Your task to perform on an android device: uninstall "Paramount+ | Peak Streaming" Image 0: 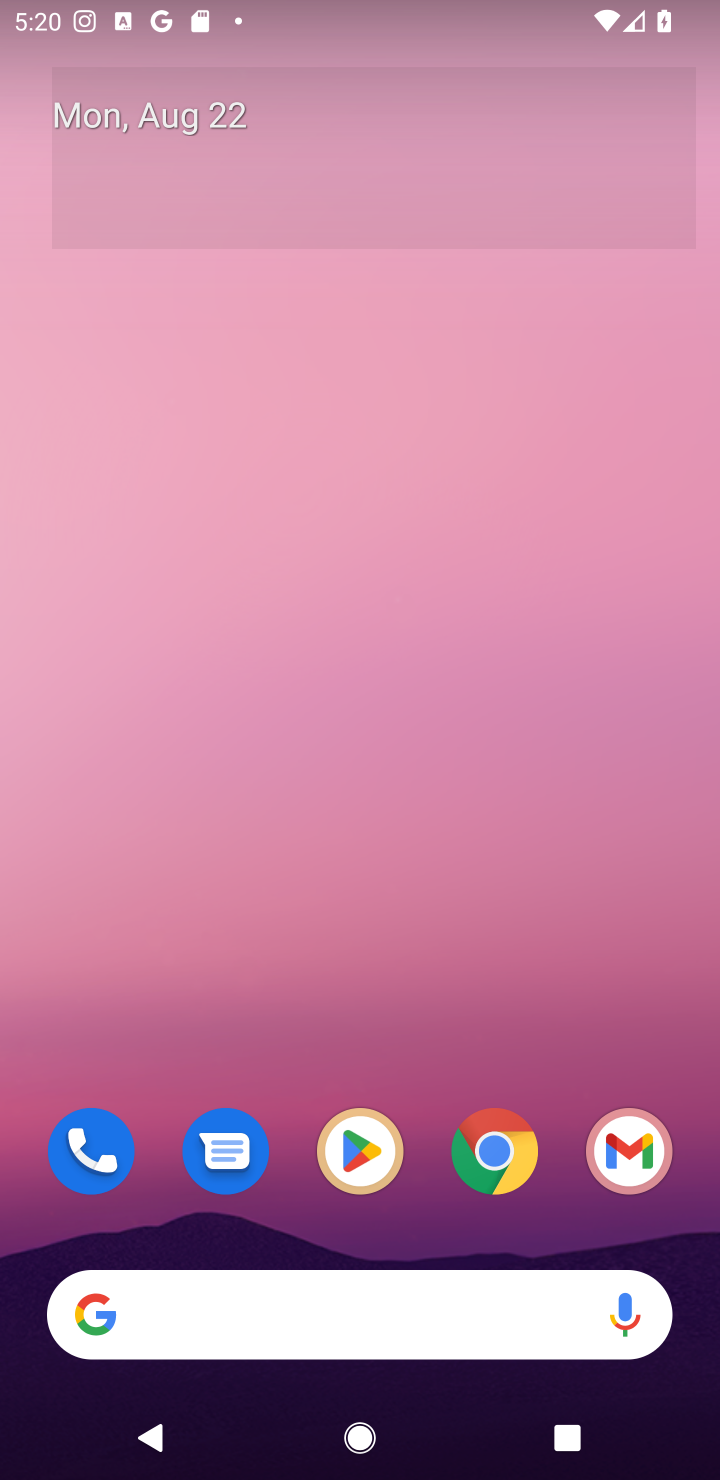
Step 0: click (362, 1145)
Your task to perform on an android device: uninstall "Paramount+ | Peak Streaming" Image 1: 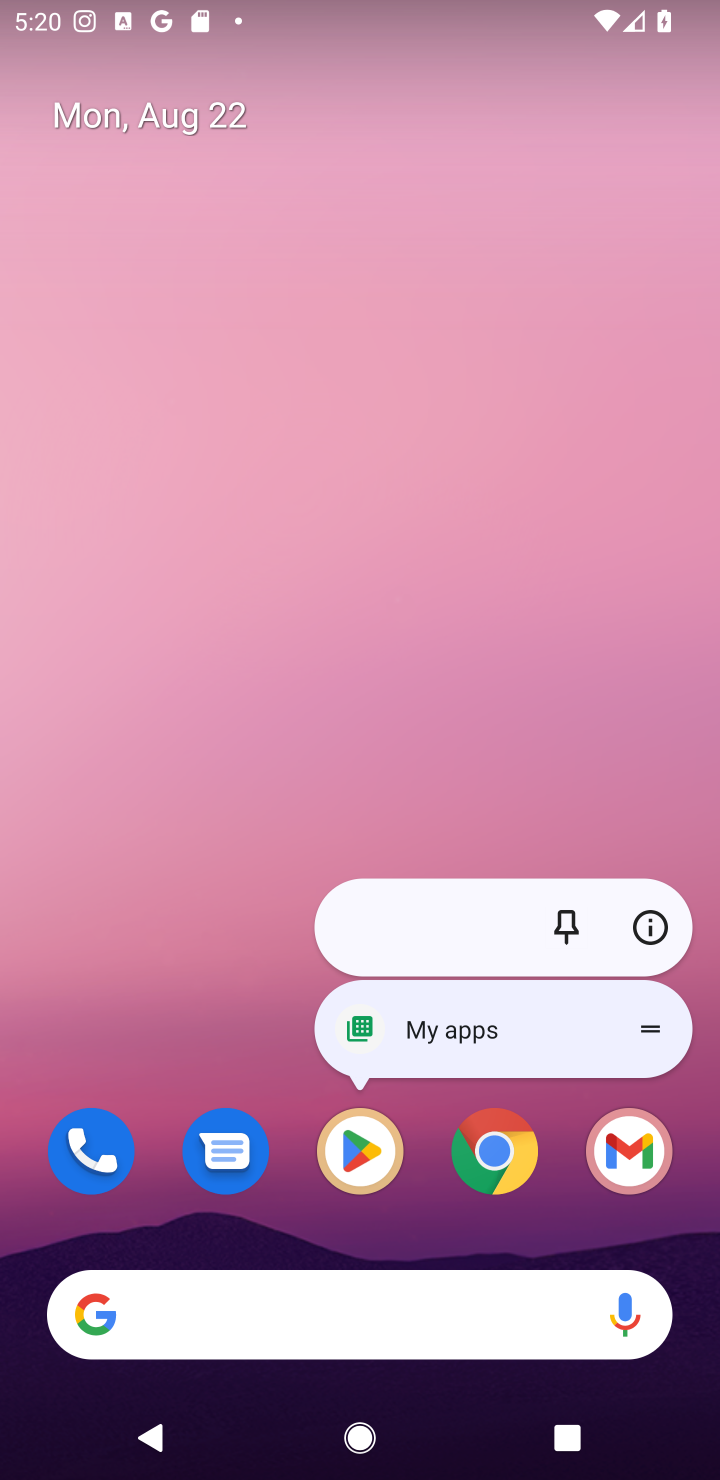
Step 1: click (362, 1149)
Your task to perform on an android device: uninstall "Paramount+ | Peak Streaming" Image 2: 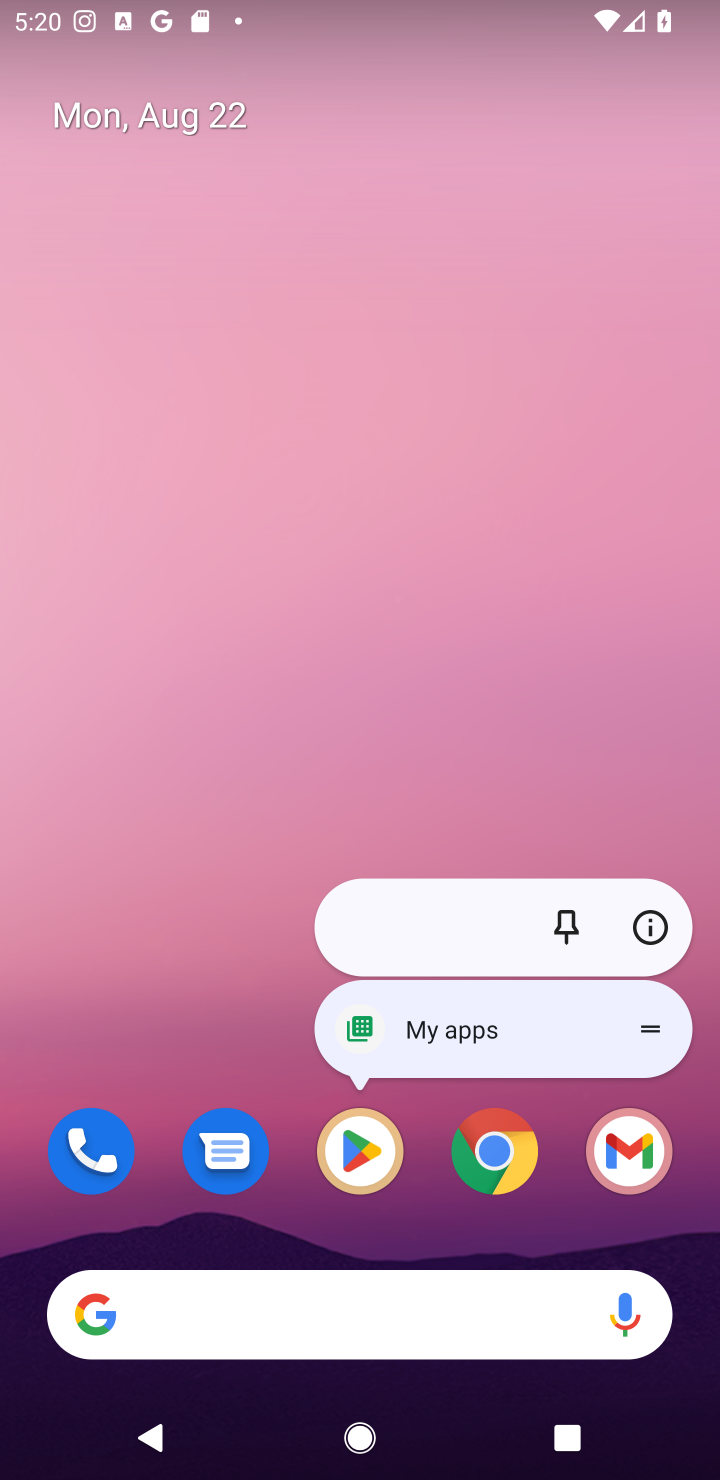
Step 2: click (369, 1134)
Your task to perform on an android device: uninstall "Paramount+ | Peak Streaming" Image 3: 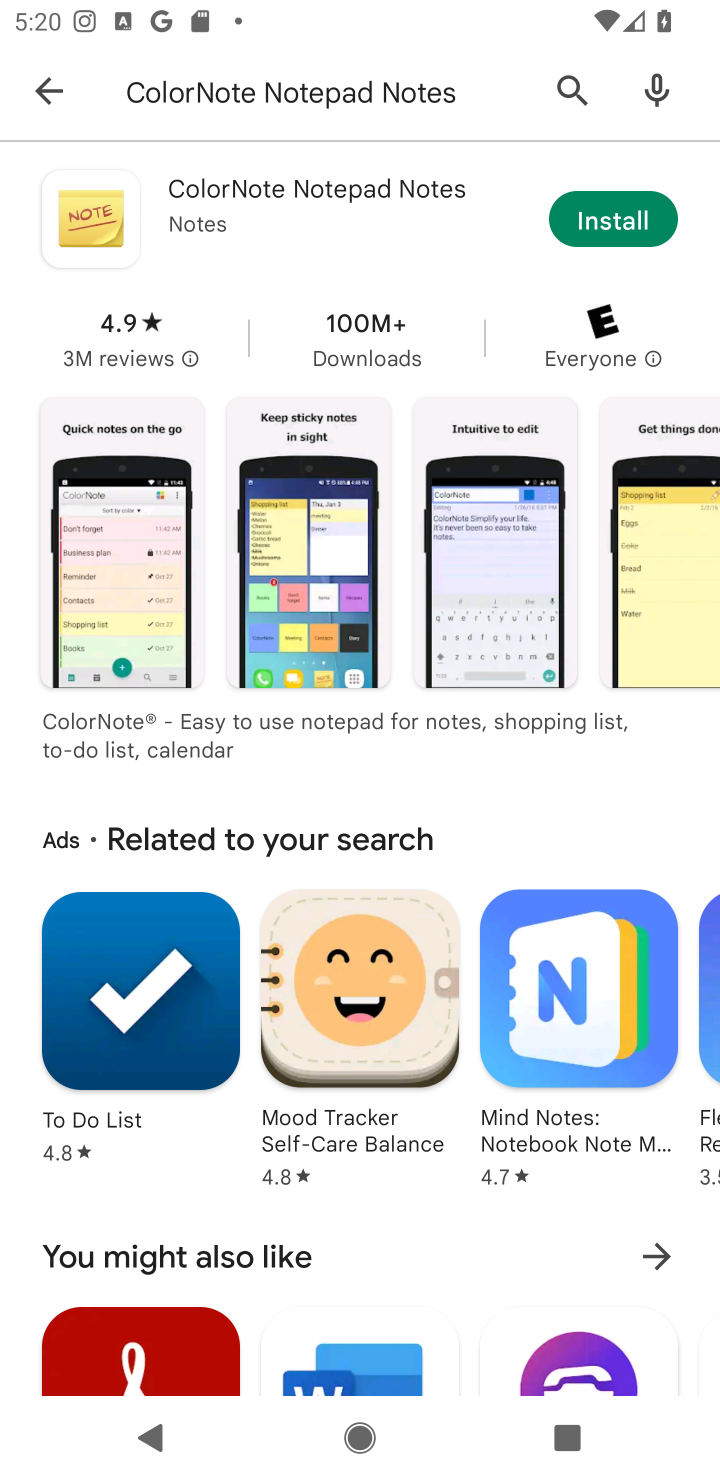
Step 3: click (558, 84)
Your task to perform on an android device: uninstall "Paramount+ | Peak Streaming" Image 4: 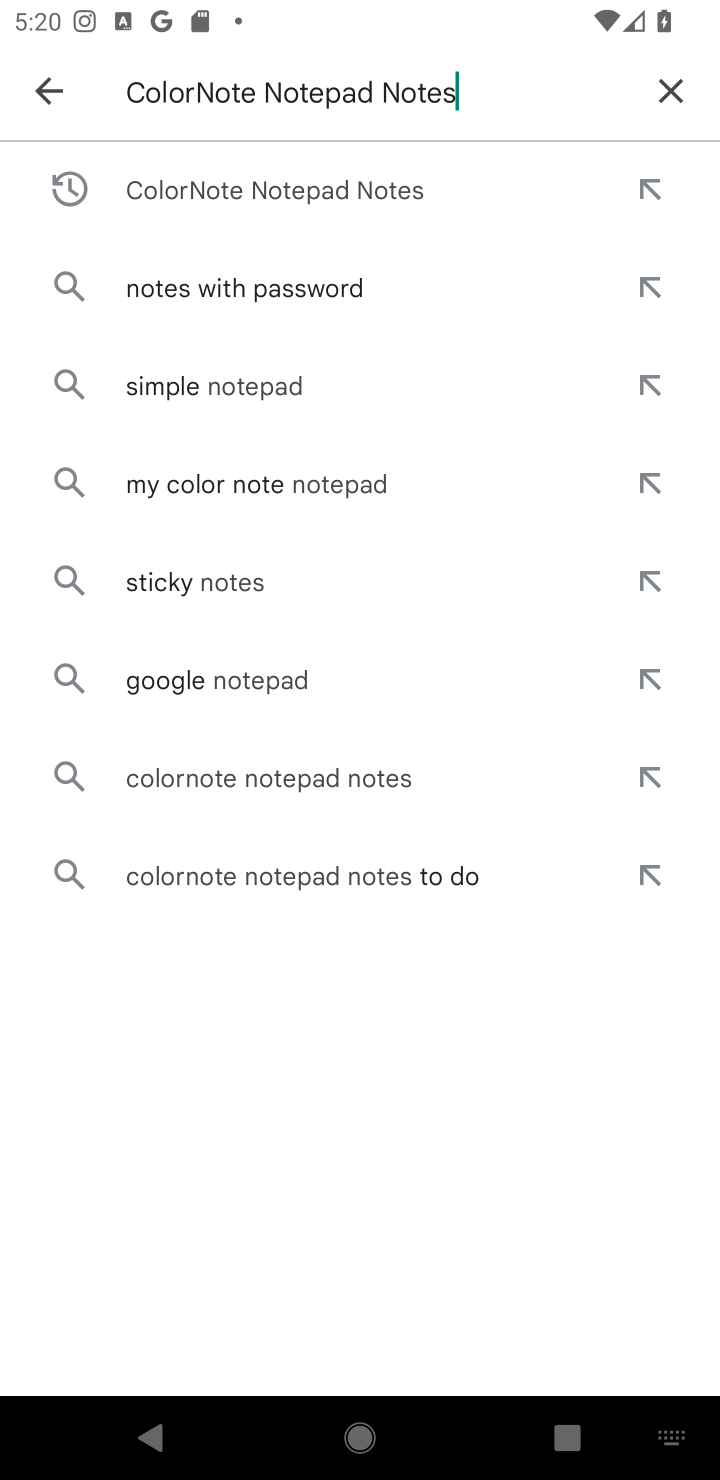
Step 4: click (669, 83)
Your task to perform on an android device: uninstall "Paramount+ | Peak Streaming" Image 5: 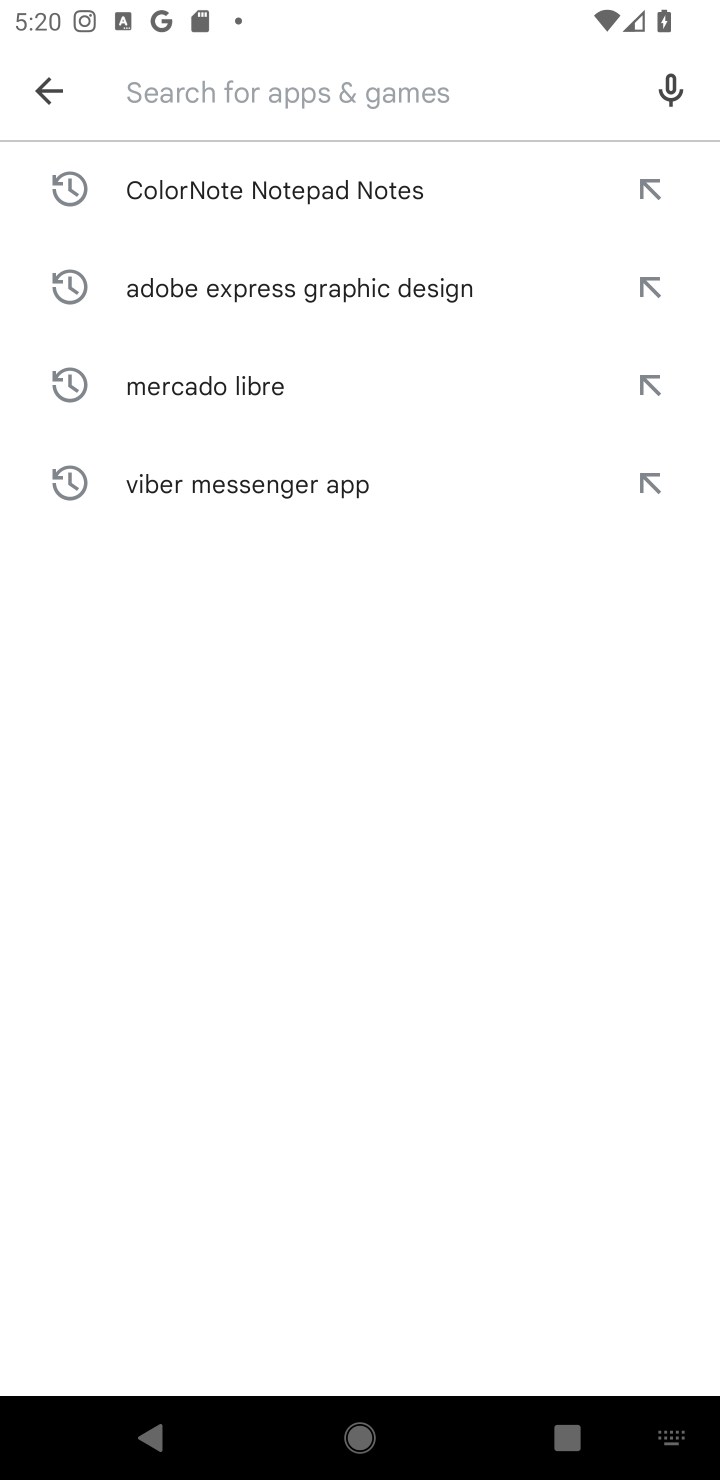
Step 5: type "Paramount+ | Peak Streaming"
Your task to perform on an android device: uninstall "Paramount+ | Peak Streaming" Image 6: 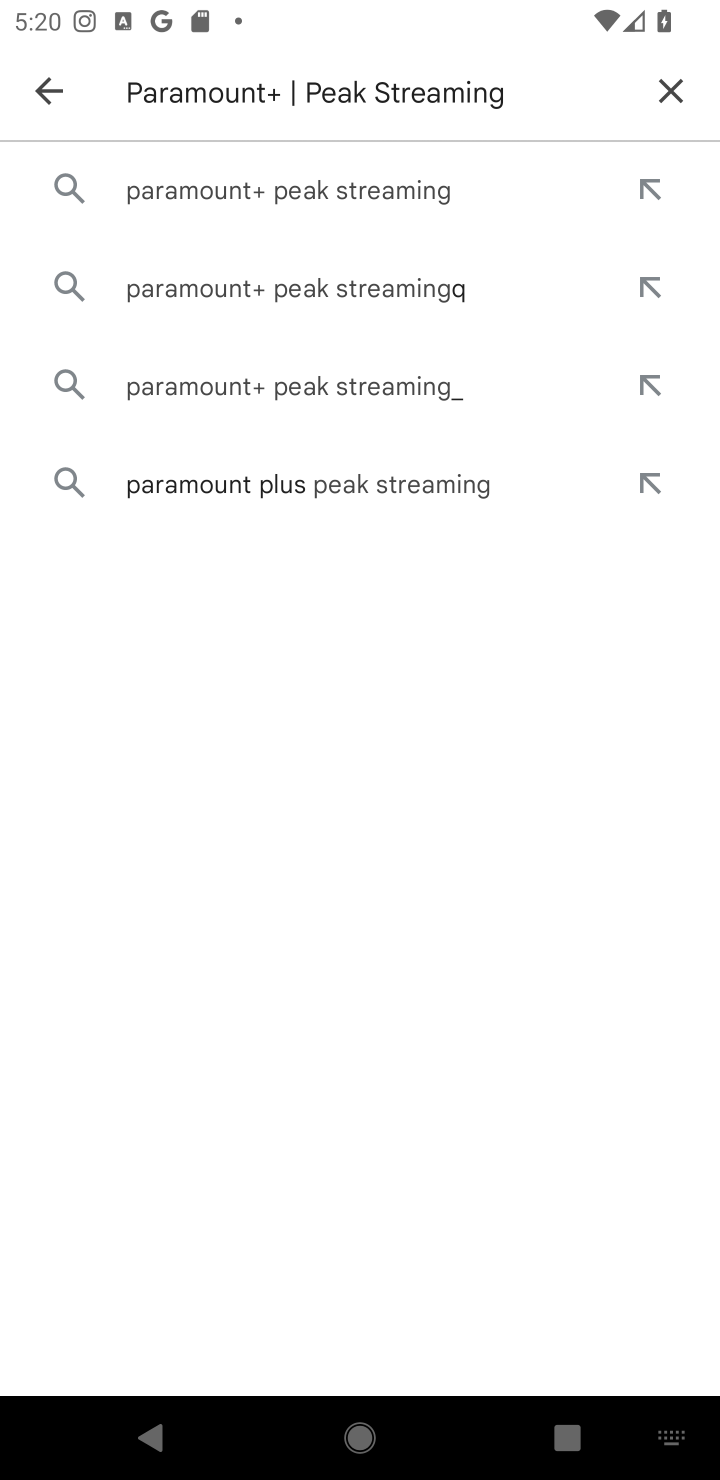
Step 6: click (337, 188)
Your task to perform on an android device: uninstall "Paramount+ | Peak Streaming" Image 7: 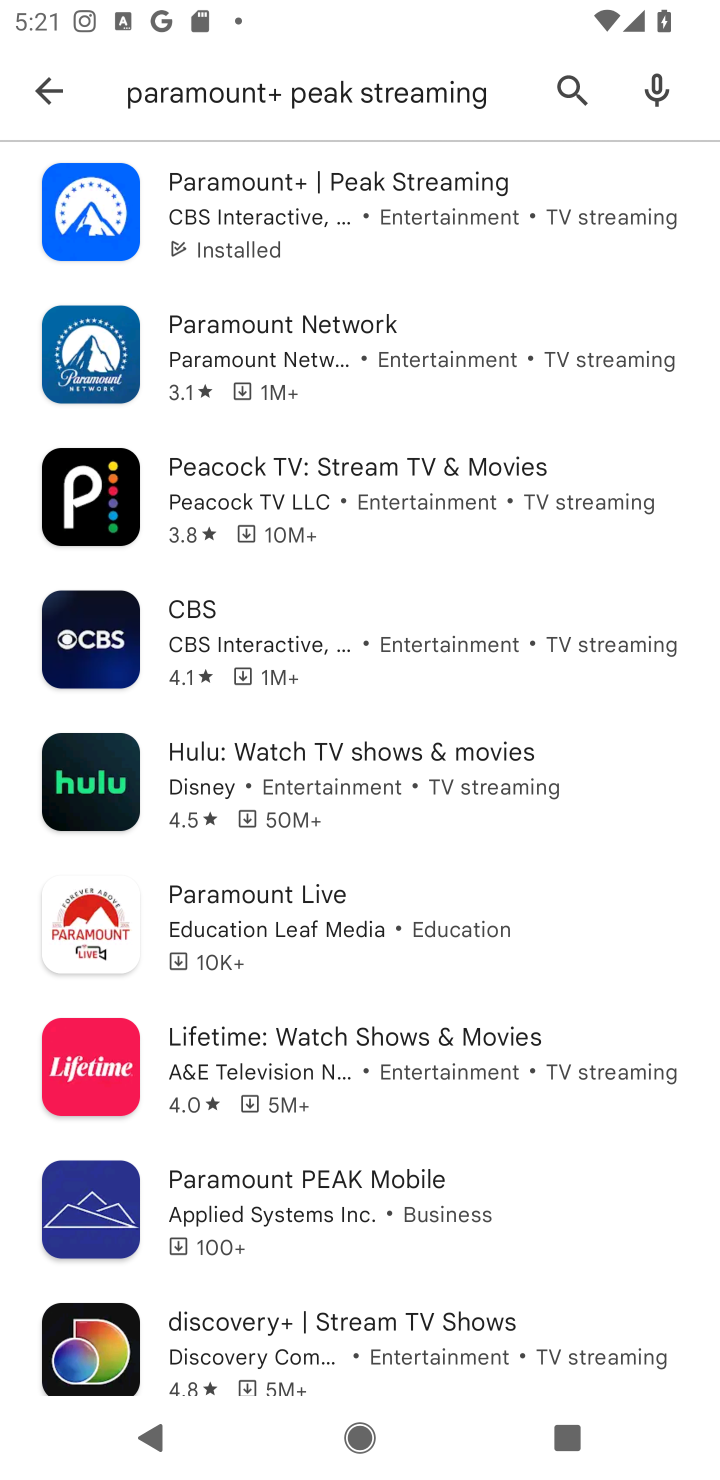
Step 7: click (308, 211)
Your task to perform on an android device: uninstall "Paramount+ | Peak Streaming" Image 8: 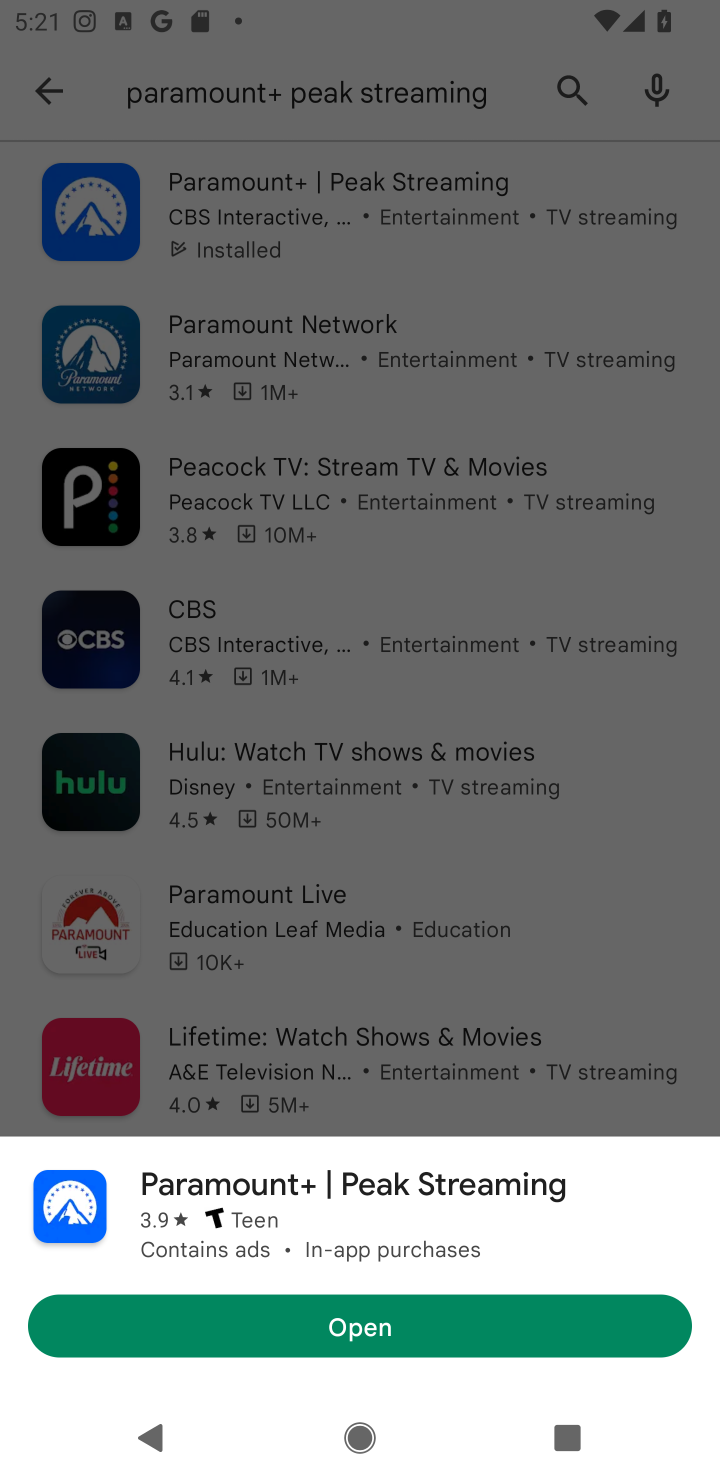
Step 8: click (77, 1206)
Your task to perform on an android device: uninstall "Paramount+ | Peak Streaming" Image 9: 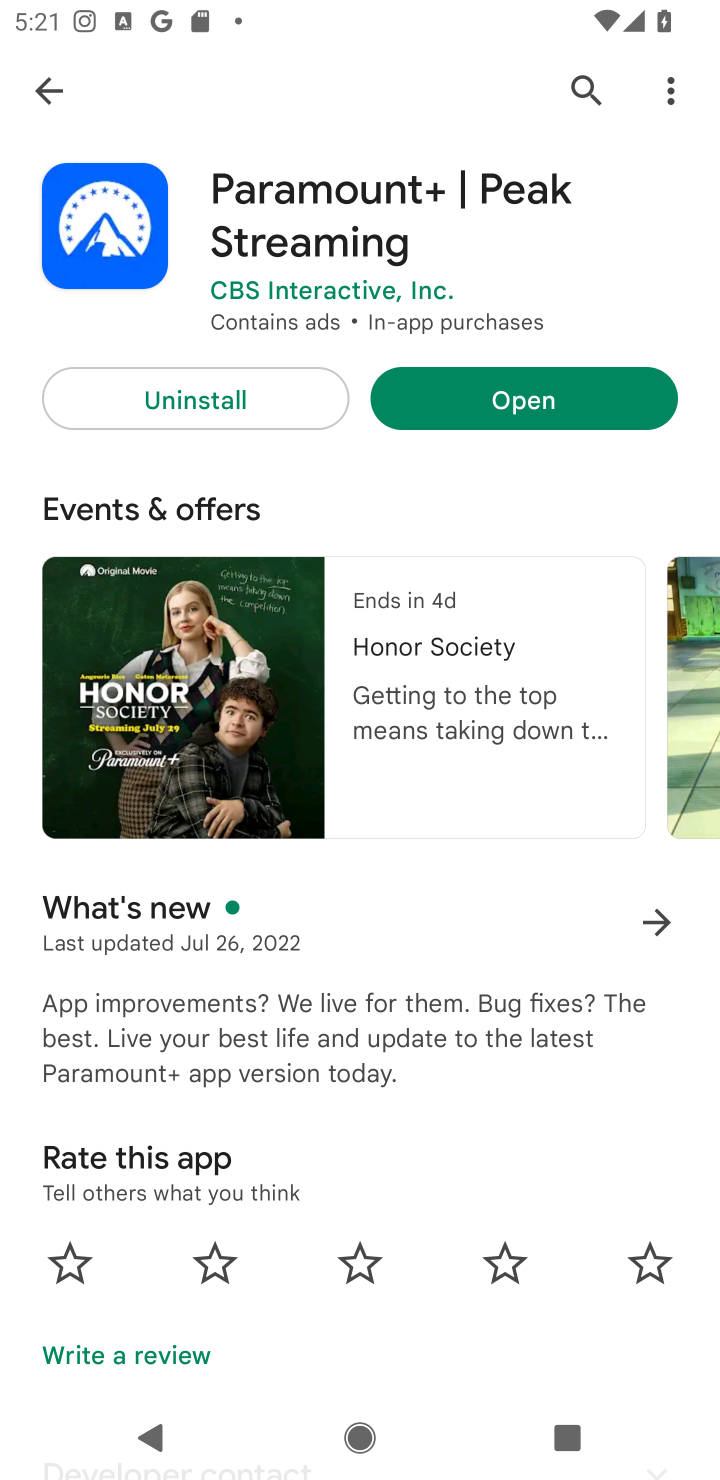
Step 9: click (201, 394)
Your task to perform on an android device: uninstall "Paramount+ | Peak Streaming" Image 10: 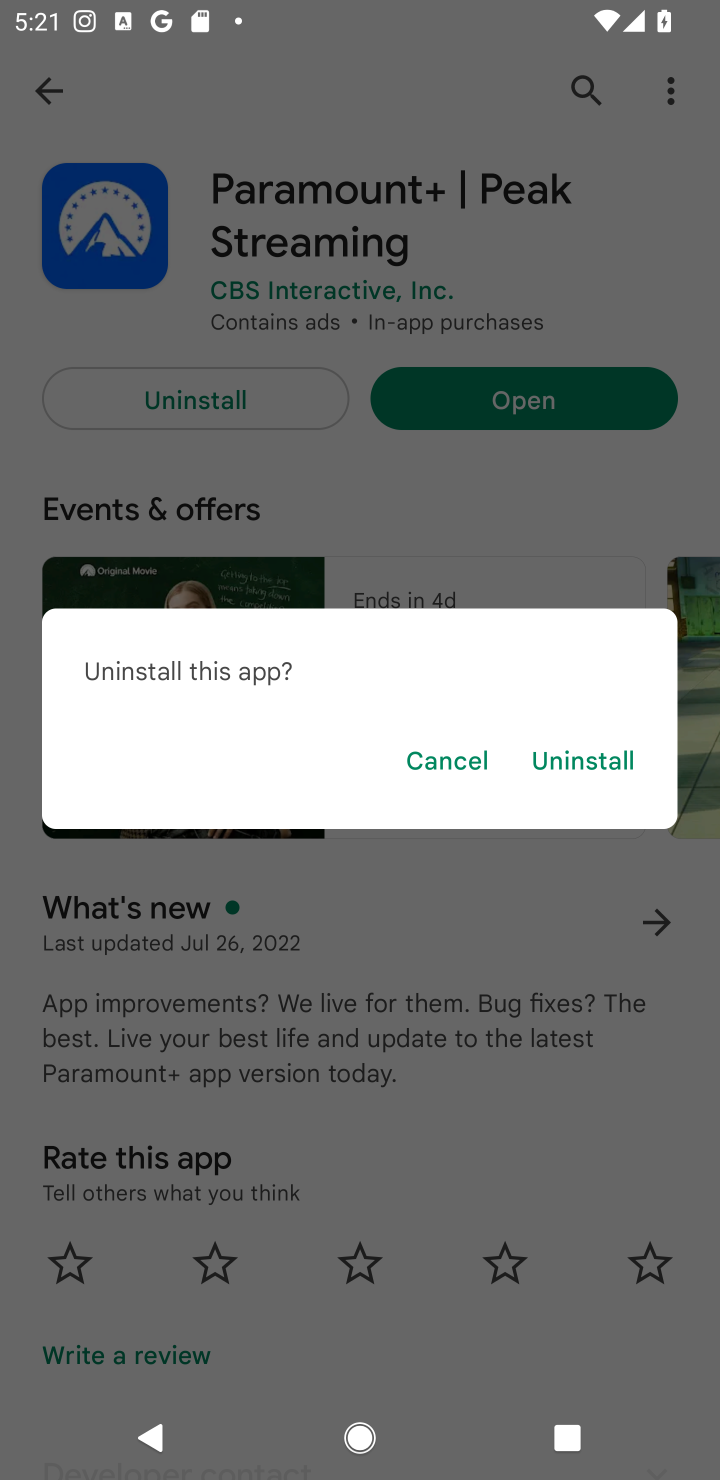
Step 10: click (584, 759)
Your task to perform on an android device: uninstall "Paramount+ | Peak Streaming" Image 11: 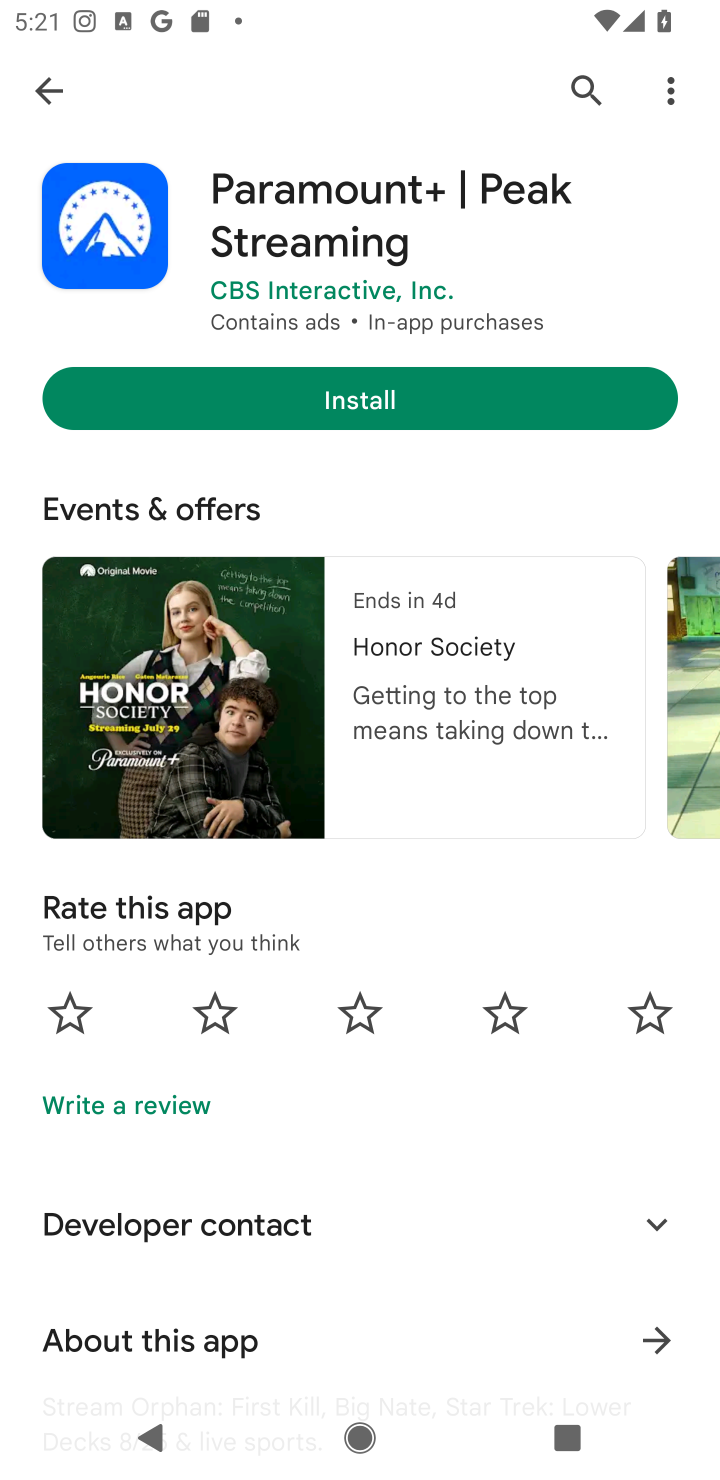
Step 11: task complete